Your task to perform on an android device: turn off priority inbox in the gmail app Image 0: 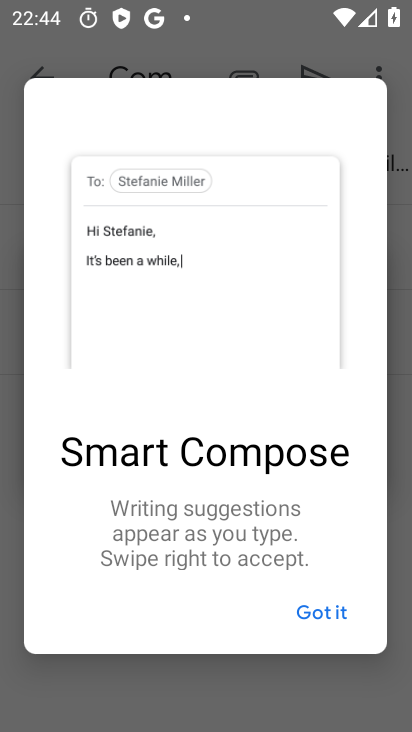
Step 0: click (317, 613)
Your task to perform on an android device: turn off priority inbox in the gmail app Image 1: 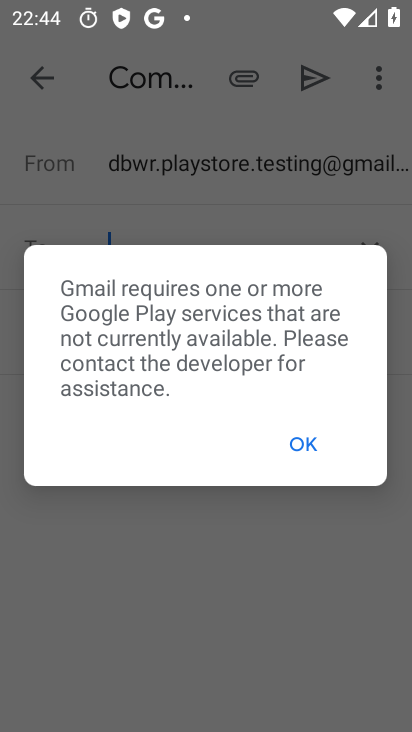
Step 1: click (286, 428)
Your task to perform on an android device: turn off priority inbox in the gmail app Image 2: 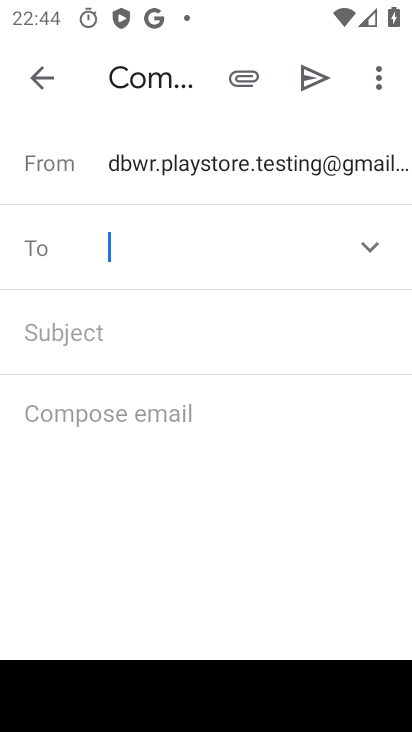
Step 2: click (36, 78)
Your task to perform on an android device: turn off priority inbox in the gmail app Image 3: 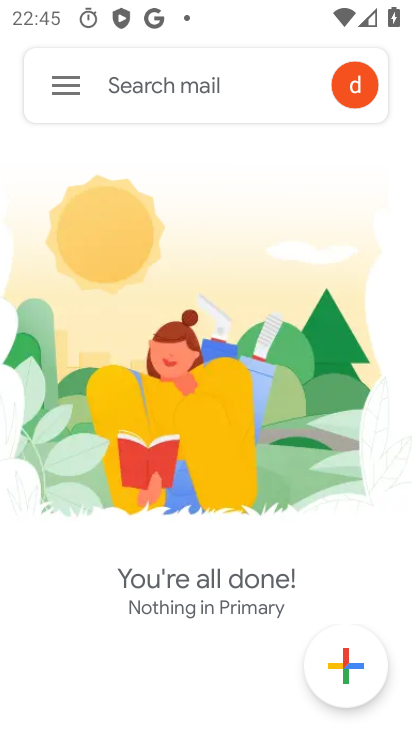
Step 3: click (65, 91)
Your task to perform on an android device: turn off priority inbox in the gmail app Image 4: 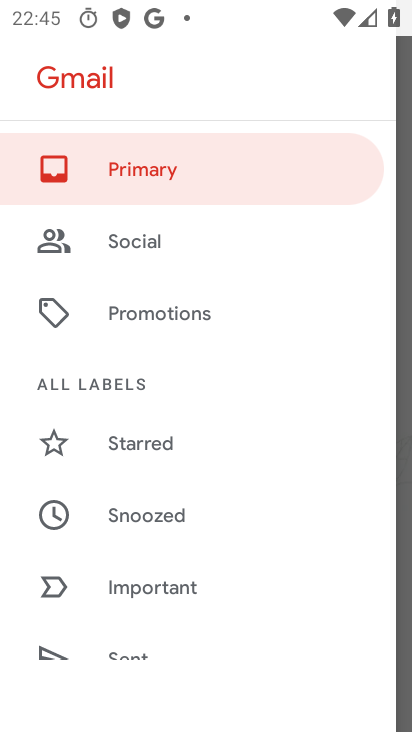
Step 4: drag from (154, 456) to (147, 183)
Your task to perform on an android device: turn off priority inbox in the gmail app Image 5: 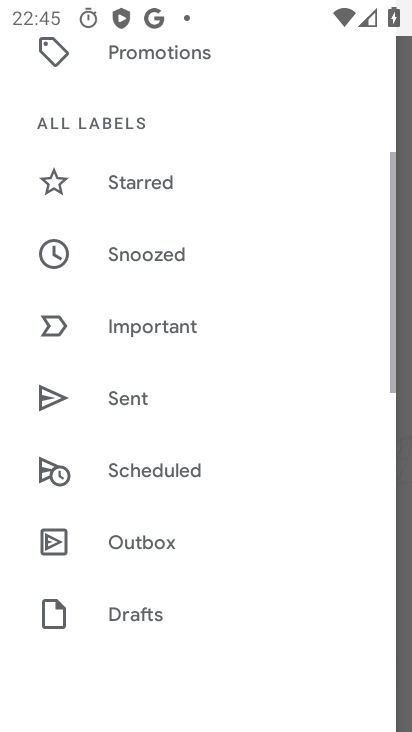
Step 5: drag from (210, 263) to (200, 204)
Your task to perform on an android device: turn off priority inbox in the gmail app Image 6: 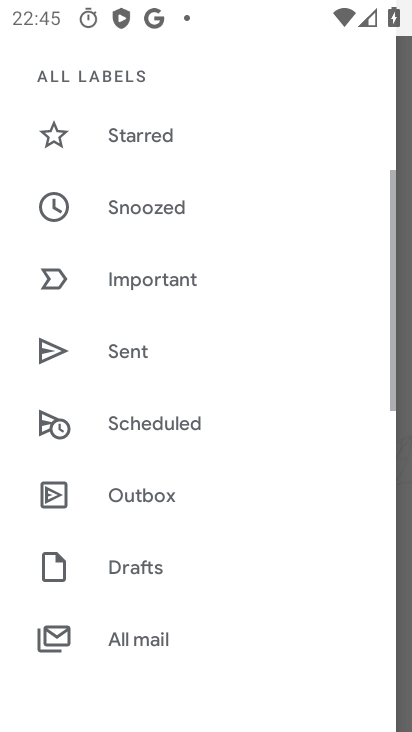
Step 6: click (131, 198)
Your task to perform on an android device: turn off priority inbox in the gmail app Image 7: 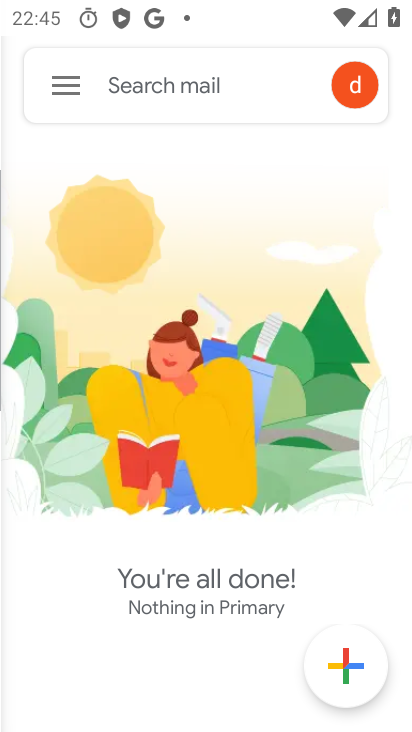
Step 7: drag from (179, 399) to (168, 206)
Your task to perform on an android device: turn off priority inbox in the gmail app Image 8: 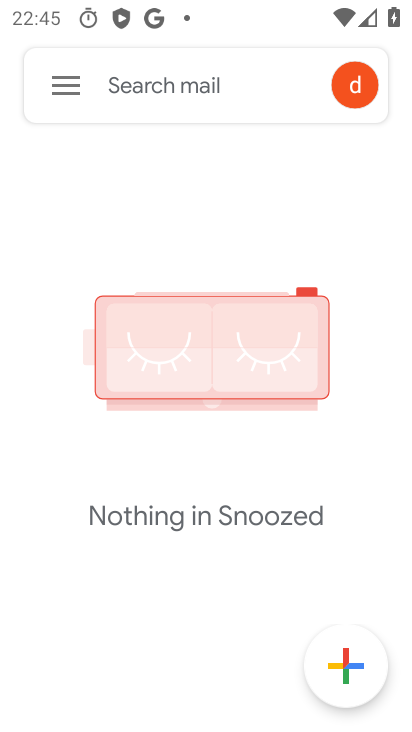
Step 8: drag from (144, 202) to (220, 91)
Your task to perform on an android device: turn off priority inbox in the gmail app Image 9: 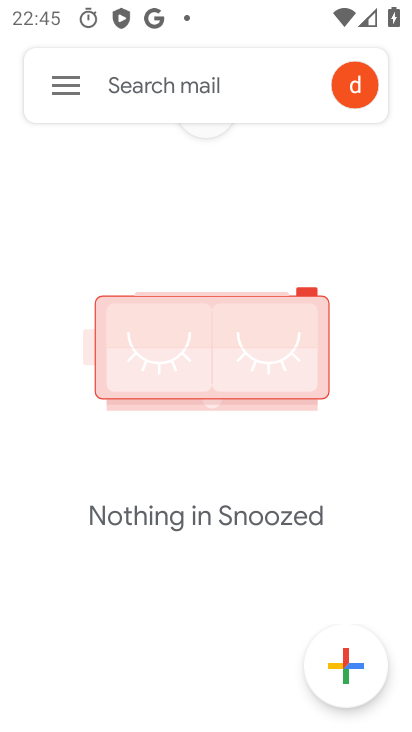
Step 9: drag from (47, 78) to (132, 106)
Your task to perform on an android device: turn off priority inbox in the gmail app Image 10: 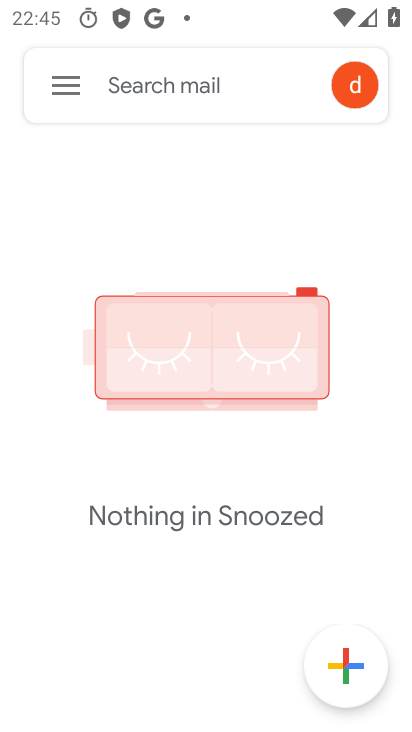
Step 10: click (67, 89)
Your task to perform on an android device: turn off priority inbox in the gmail app Image 11: 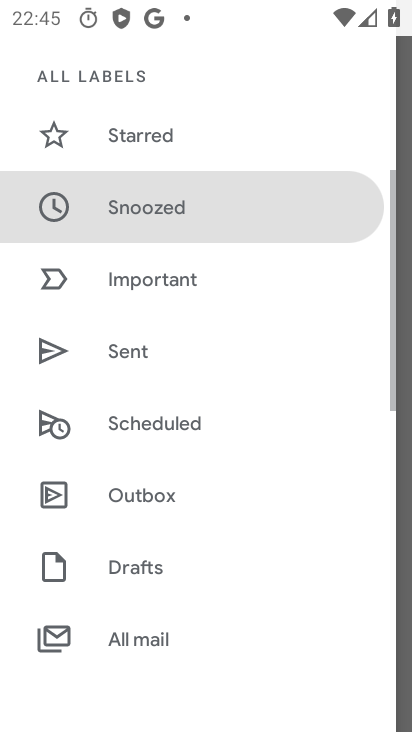
Step 11: drag from (209, 506) to (112, 76)
Your task to perform on an android device: turn off priority inbox in the gmail app Image 12: 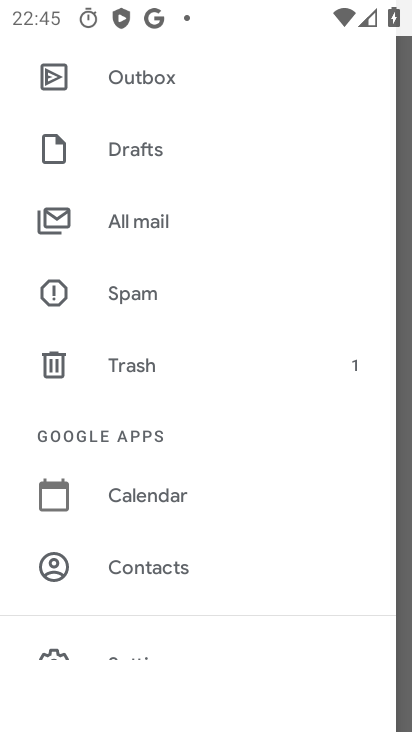
Step 12: drag from (256, 422) to (243, 90)
Your task to perform on an android device: turn off priority inbox in the gmail app Image 13: 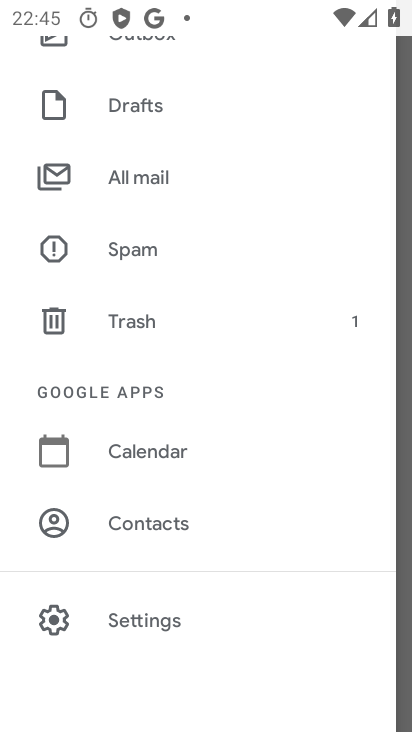
Step 13: click (125, 624)
Your task to perform on an android device: turn off priority inbox in the gmail app Image 14: 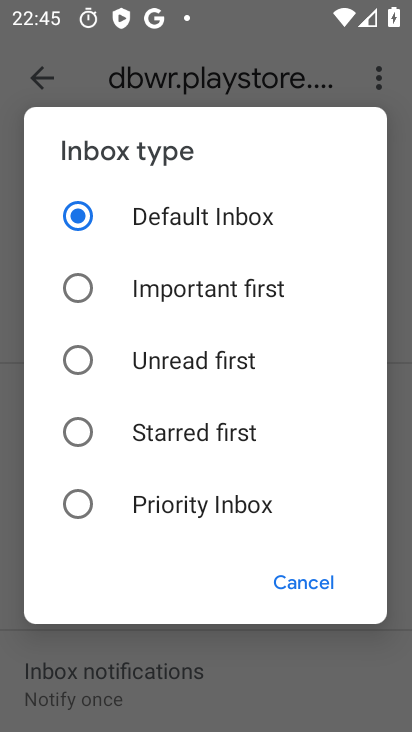
Step 14: task complete